Your task to perform on an android device: show emergency info Image 0: 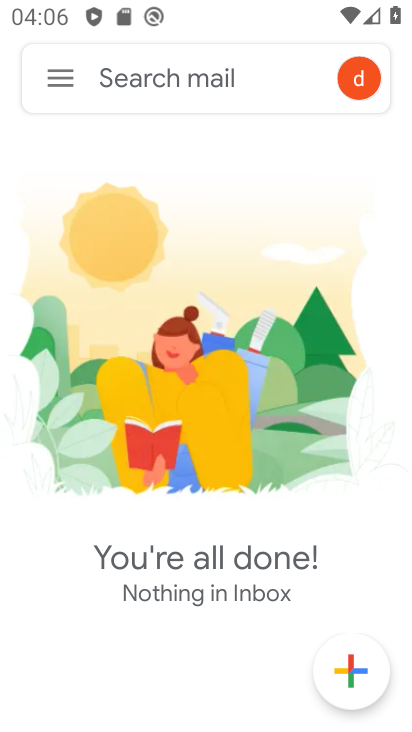
Step 0: press home button
Your task to perform on an android device: show emergency info Image 1: 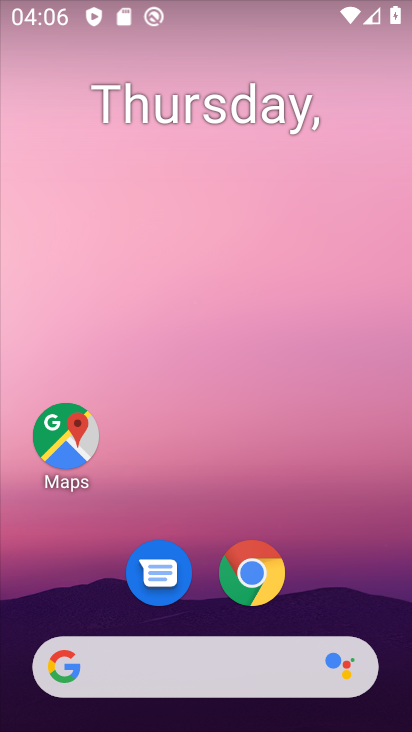
Step 1: drag from (374, 646) to (270, 120)
Your task to perform on an android device: show emergency info Image 2: 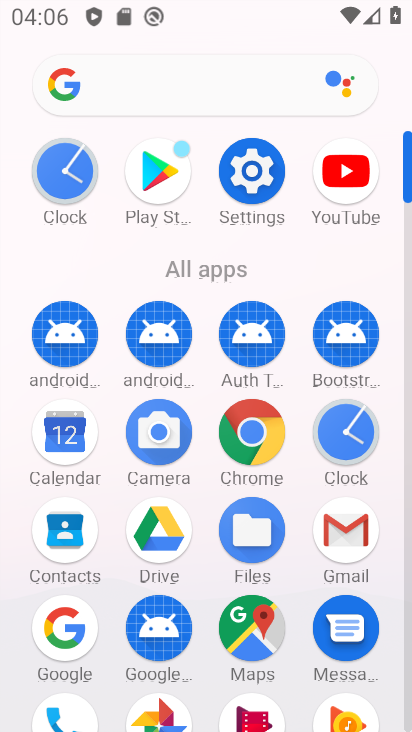
Step 2: click (405, 692)
Your task to perform on an android device: show emergency info Image 3: 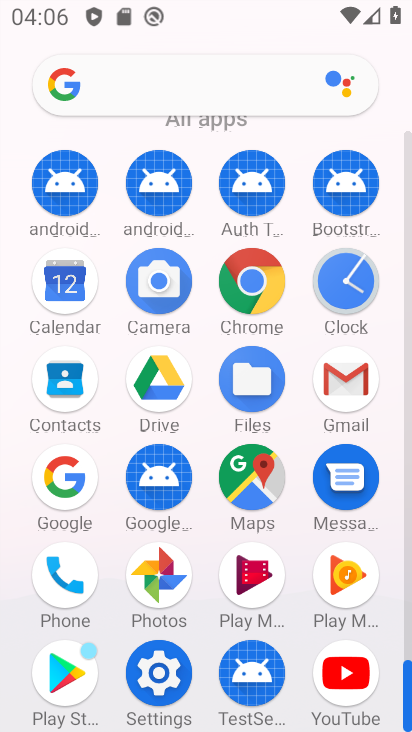
Step 3: click (160, 678)
Your task to perform on an android device: show emergency info Image 4: 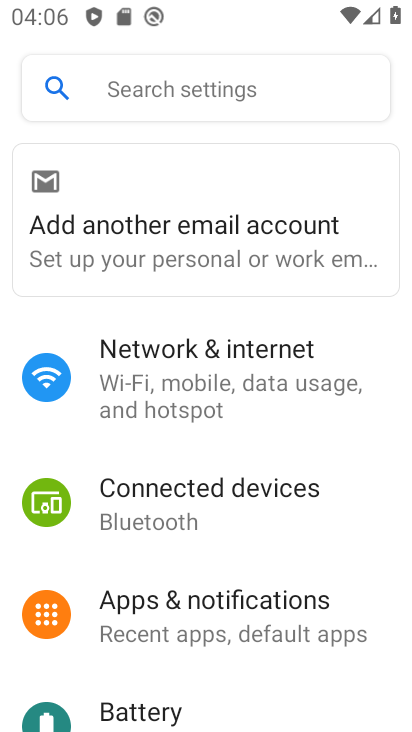
Step 4: drag from (322, 652) to (318, 116)
Your task to perform on an android device: show emergency info Image 5: 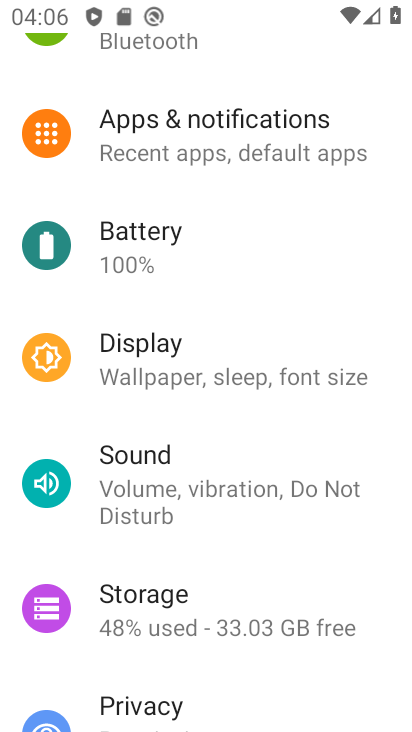
Step 5: drag from (322, 659) to (301, 2)
Your task to perform on an android device: show emergency info Image 6: 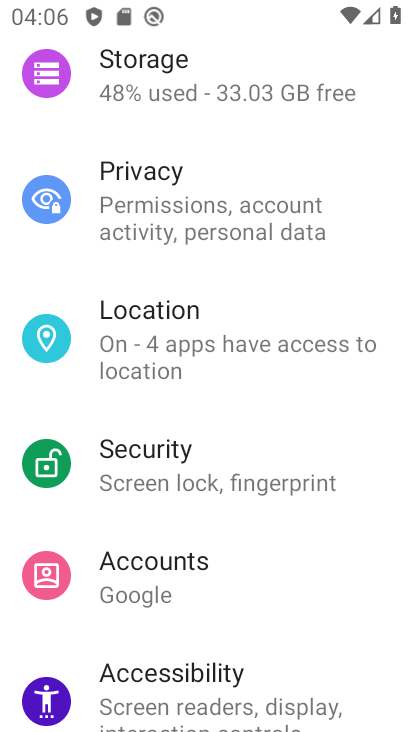
Step 6: drag from (299, 652) to (358, 158)
Your task to perform on an android device: show emergency info Image 7: 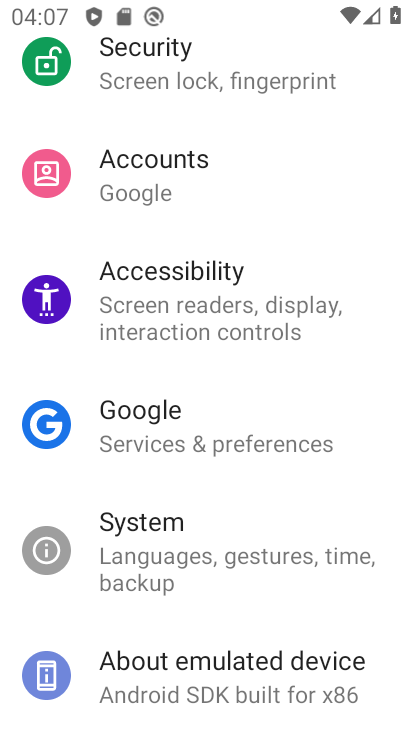
Step 7: click (204, 673)
Your task to perform on an android device: show emergency info Image 8: 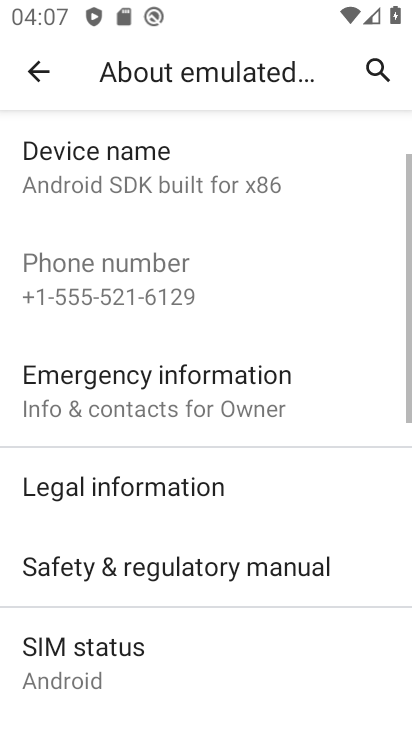
Step 8: click (107, 380)
Your task to perform on an android device: show emergency info Image 9: 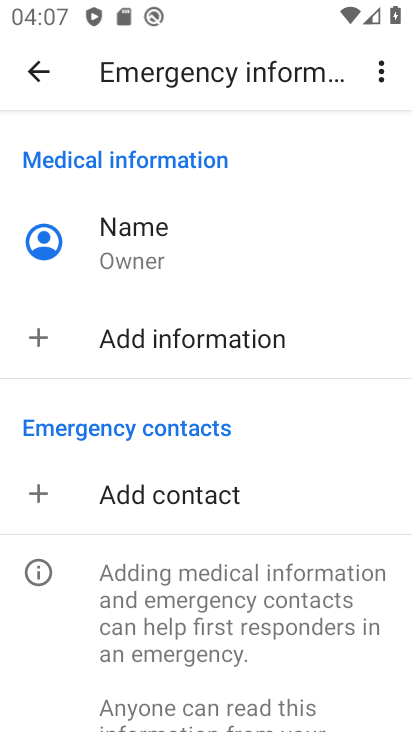
Step 9: task complete